Your task to perform on an android device: make emails show in primary in the gmail app Image 0: 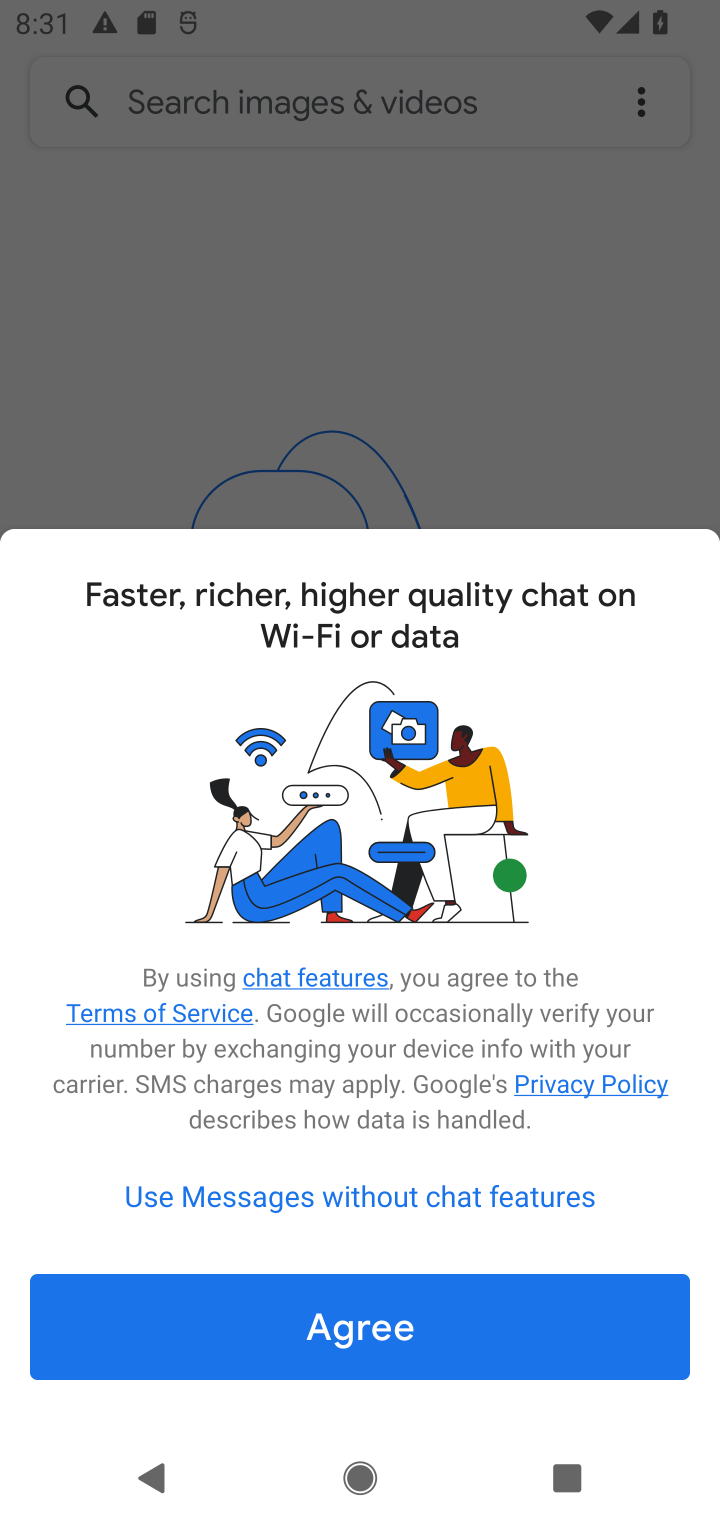
Step 0: press home button
Your task to perform on an android device: make emails show in primary in the gmail app Image 1: 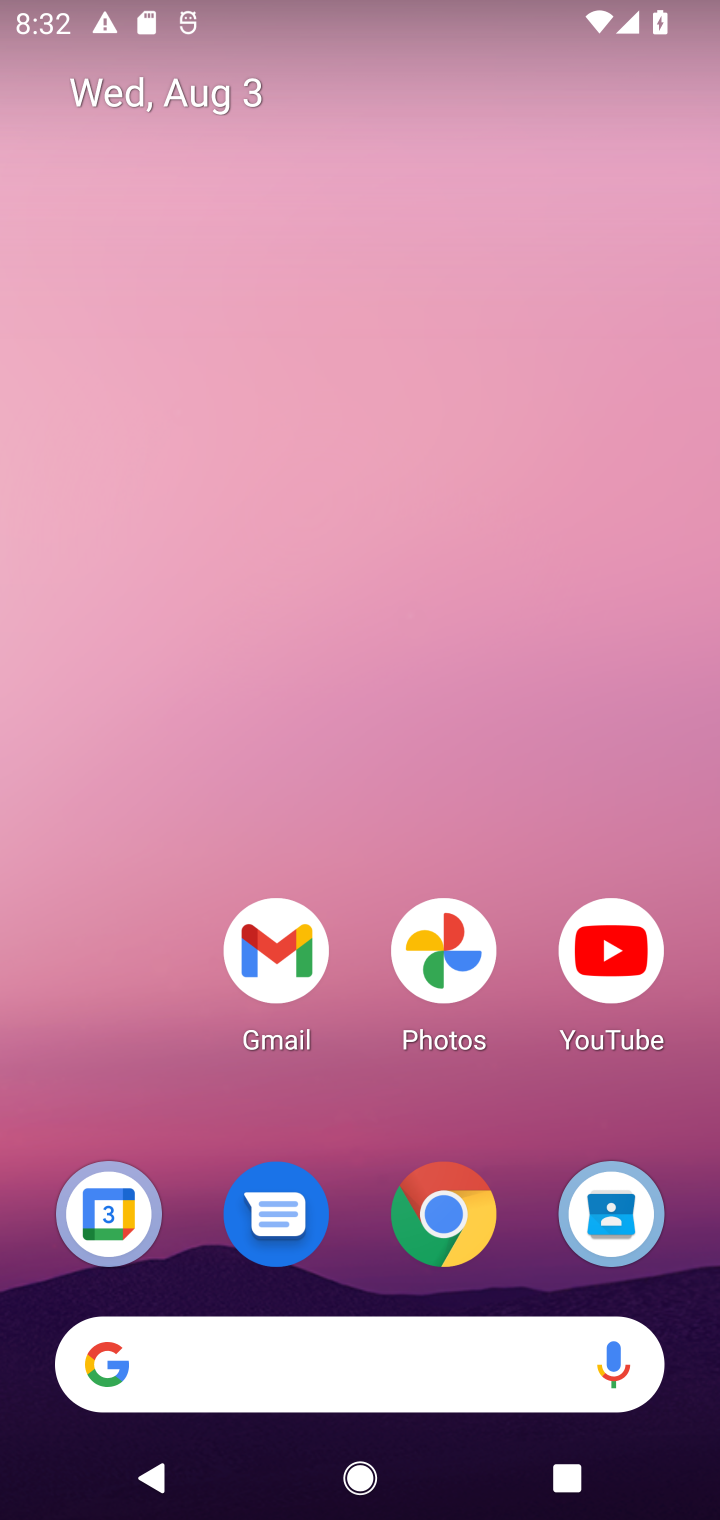
Step 1: click (261, 968)
Your task to perform on an android device: make emails show in primary in the gmail app Image 2: 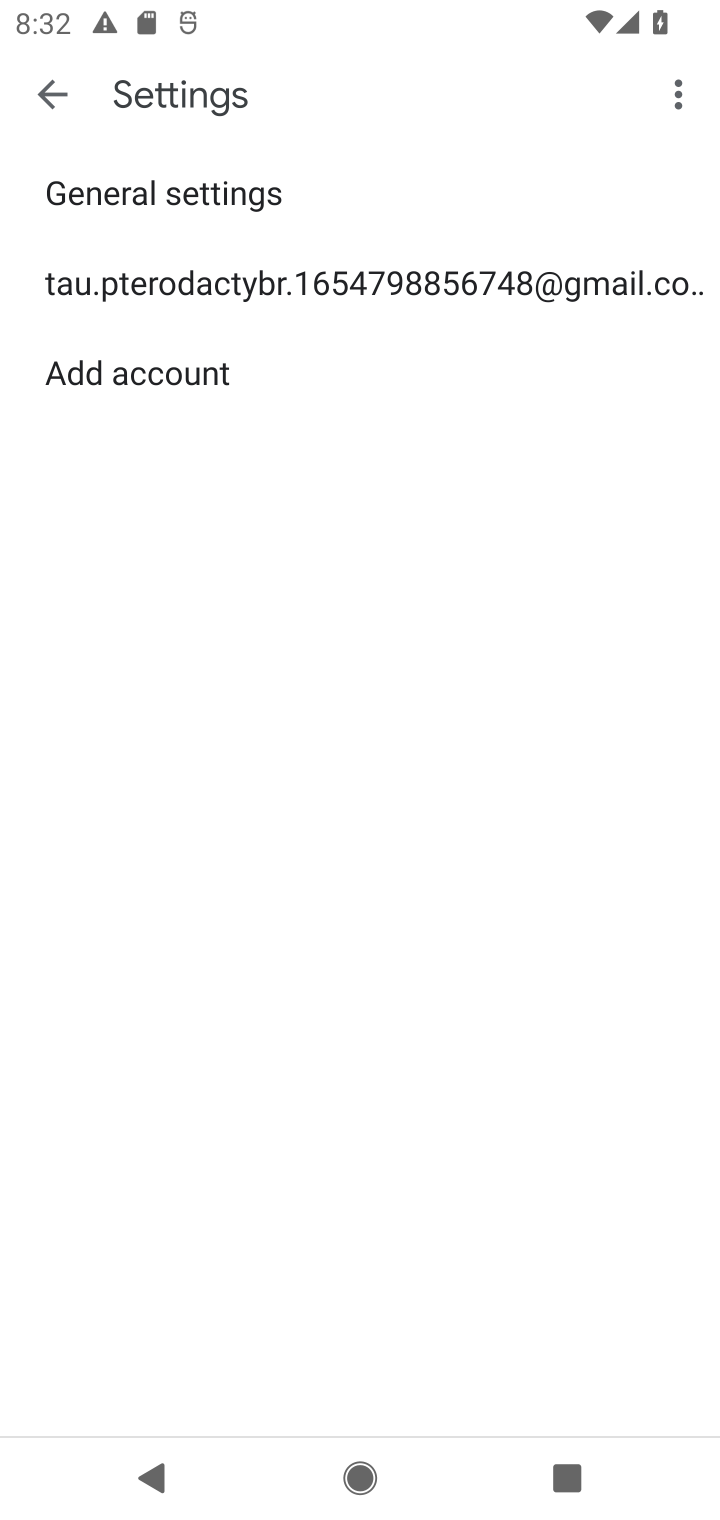
Step 2: click (336, 279)
Your task to perform on an android device: make emails show in primary in the gmail app Image 3: 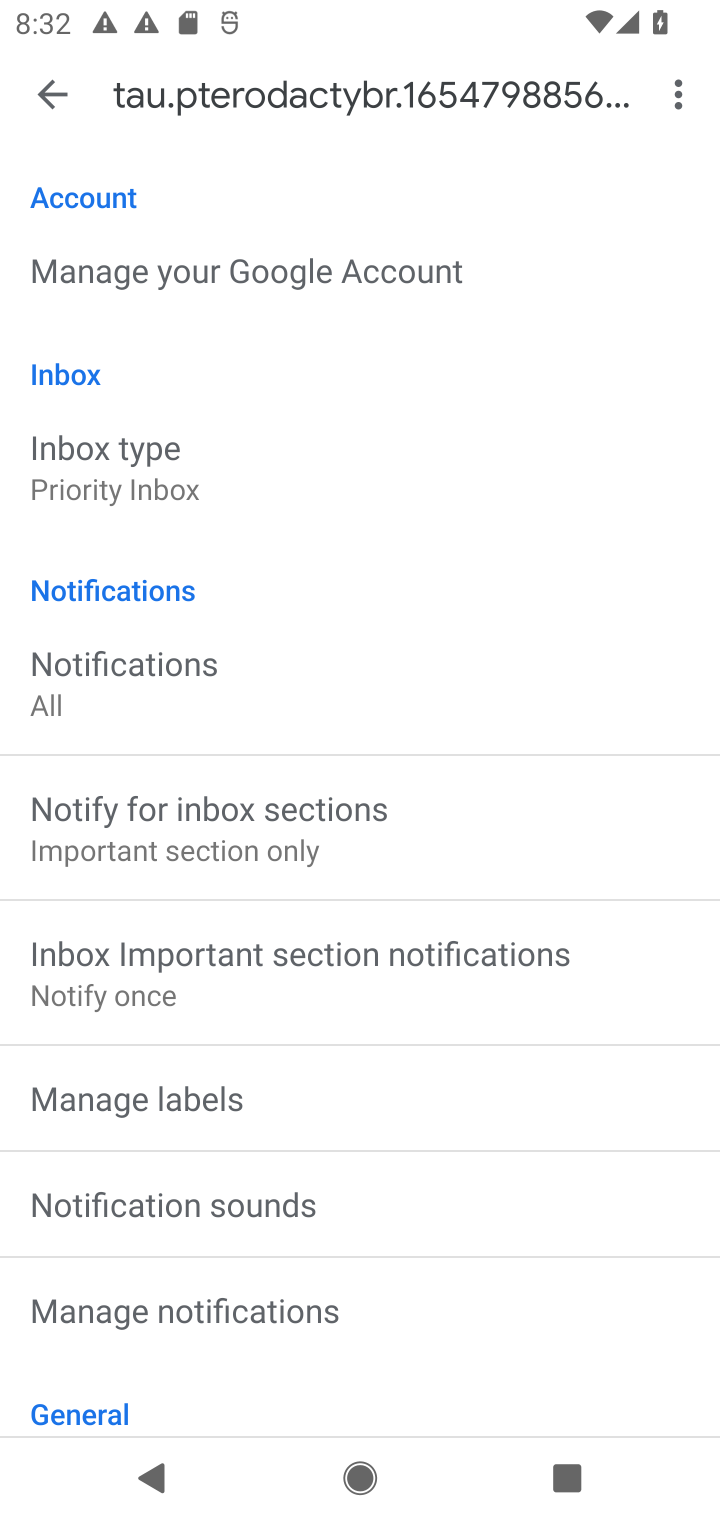
Step 3: click (202, 482)
Your task to perform on an android device: make emails show in primary in the gmail app Image 4: 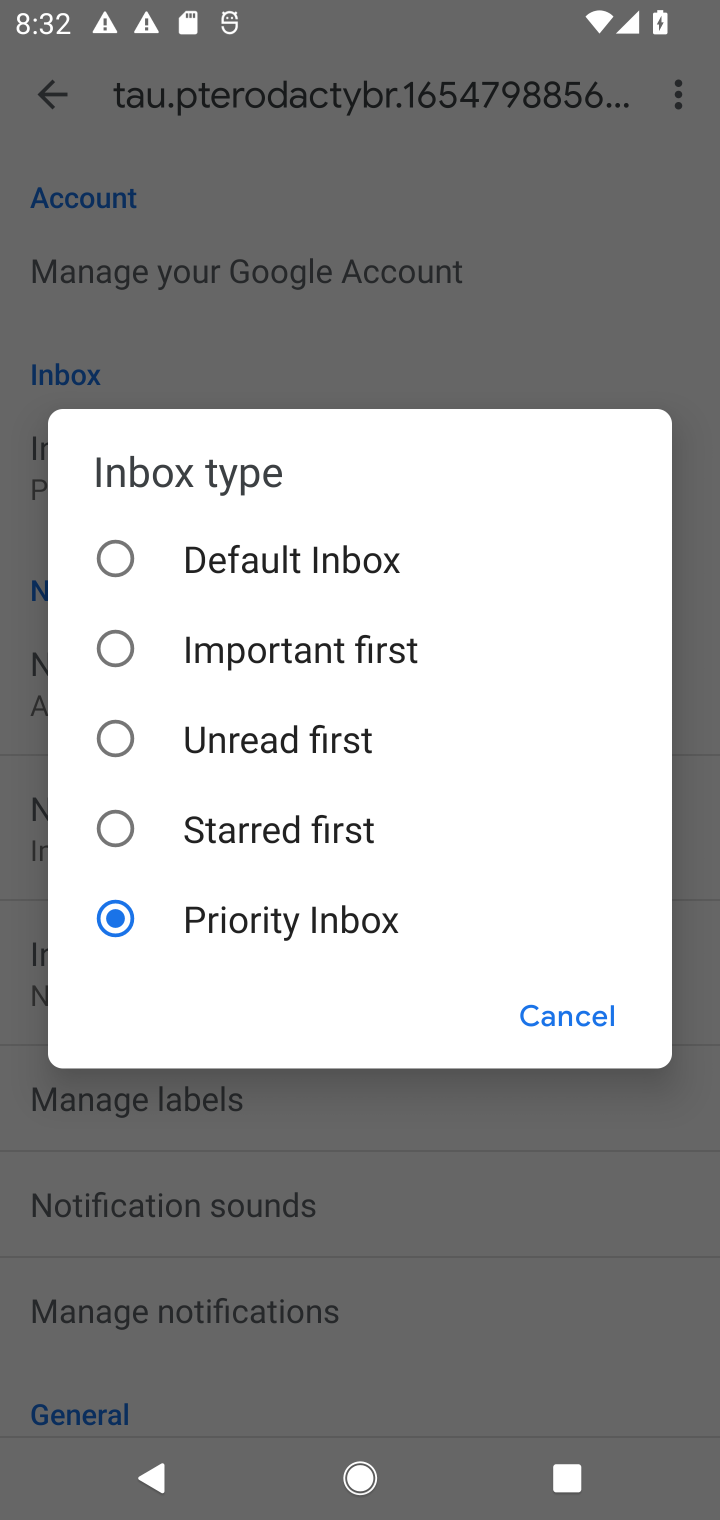
Step 4: click (292, 561)
Your task to perform on an android device: make emails show in primary in the gmail app Image 5: 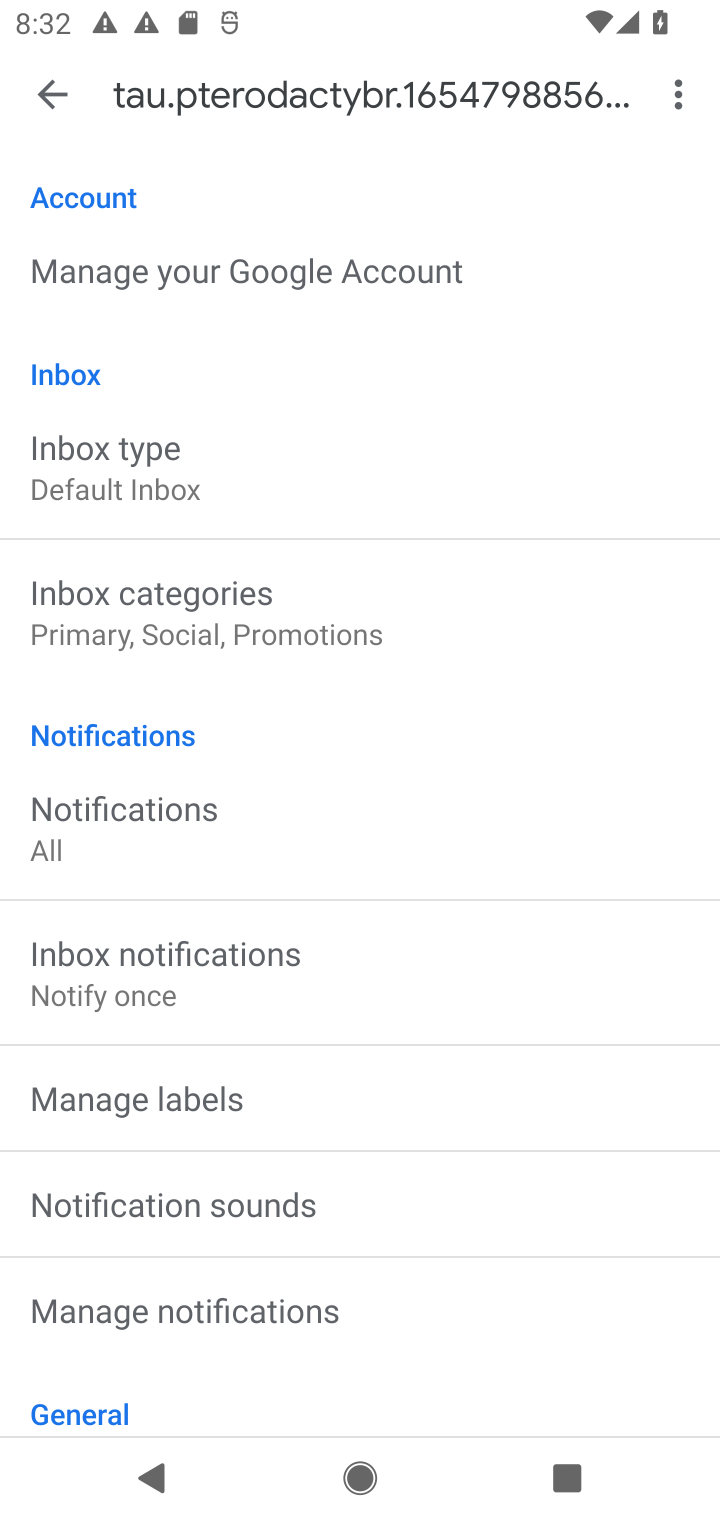
Step 5: task complete